Your task to perform on an android device: check storage Image 0: 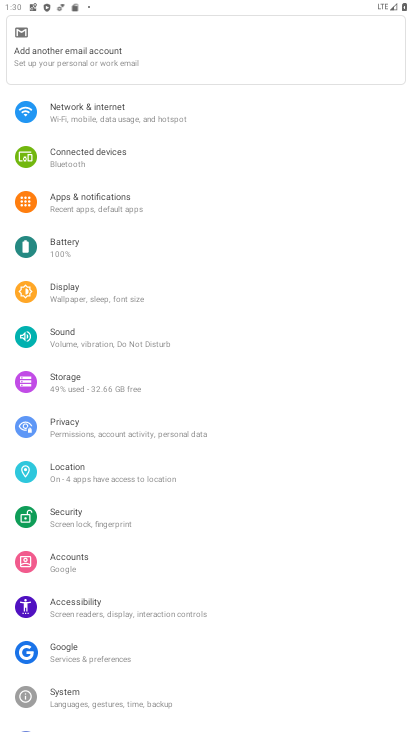
Step 0: click (76, 385)
Your task to perform on an android device: check storage Image 1: 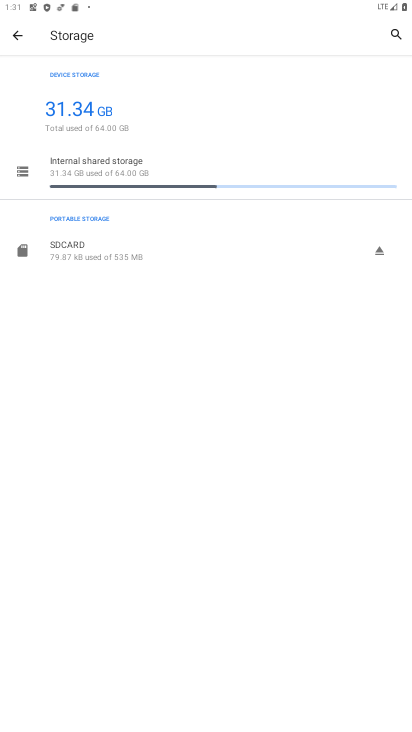
Step 1: task complete